Your task to perform on an android device: Go to wifi settings Image 0: 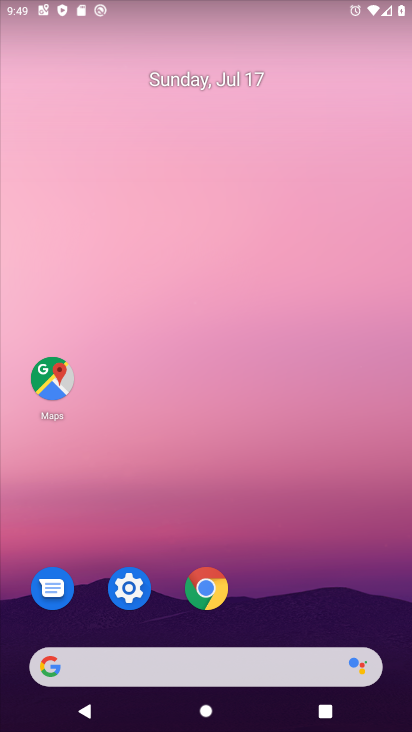
Step 0: drag from (291, 661) to (210, 12)
Your task to perform on an android device: Go to wifi settings Image 1: 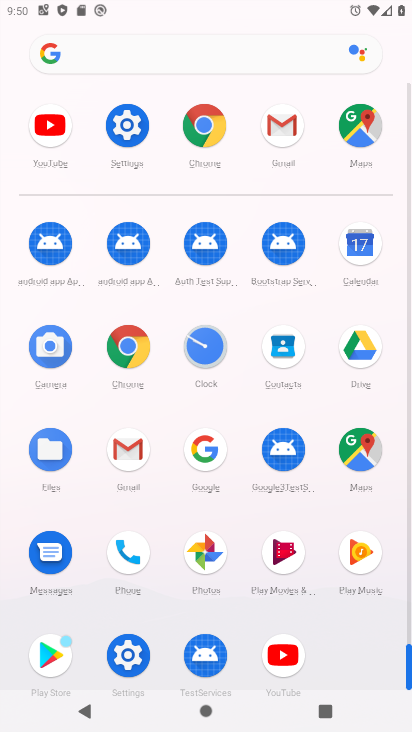
Step 1: click (134, 650)
Your task to perform on an android device: Go to wifi settings Image 2: 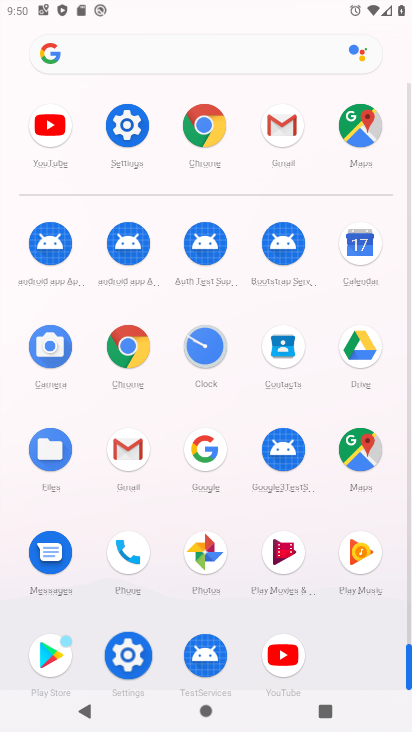
Step 2: click (133, 649)
Your task to perform on an android device: Go to wifi settings Image 3: 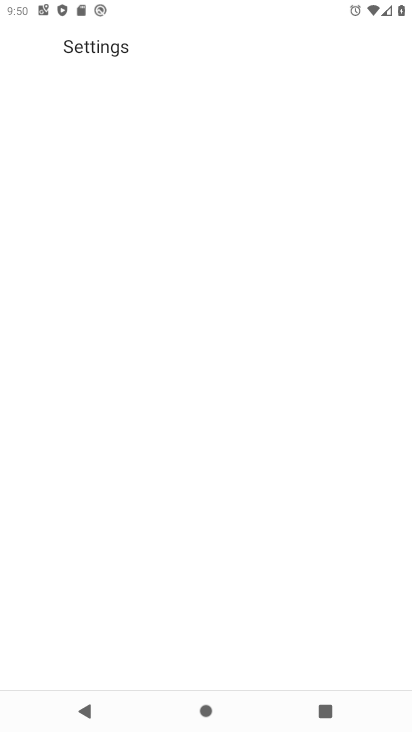
Step 3: click (133, 649)
Your task to perform on an android device: Go to wifi settings Image 4: 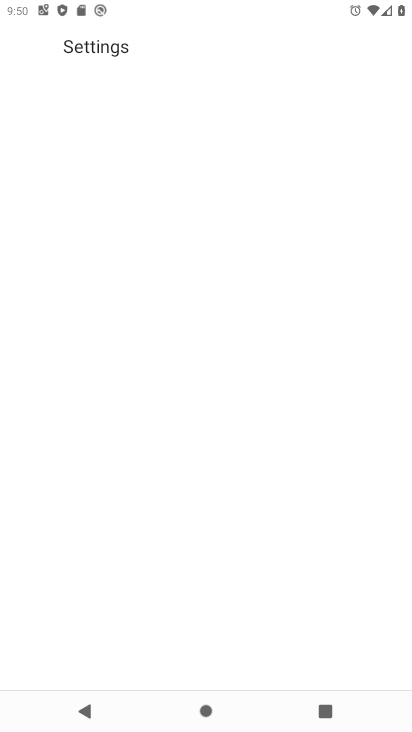
Step 4: click (131, 648)
Your task to perform on an android device: Go to wifi settings Image 5: 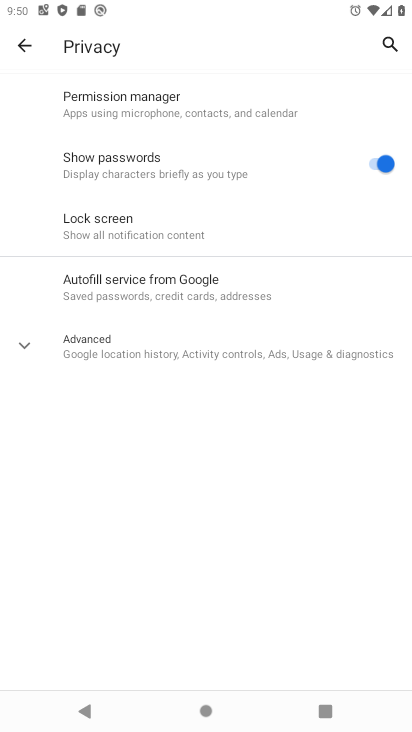
Step 5: click (21, 38)
Your task to perform on an android device: Go to wifi settings Image 6: 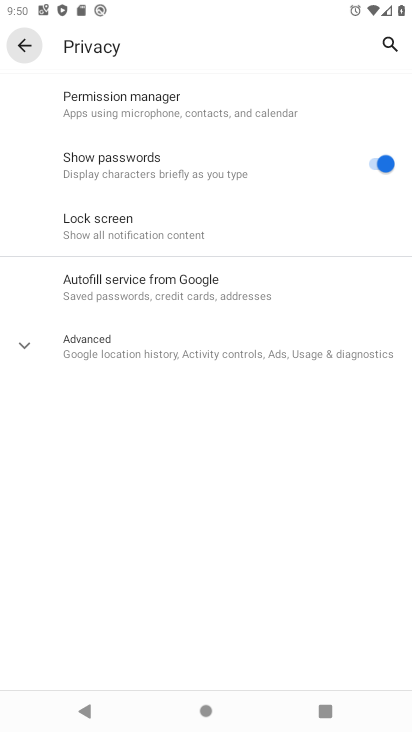
Step 6: click (24, 37)
Your task to perform on an android device: Go to wifi settings Image 7: 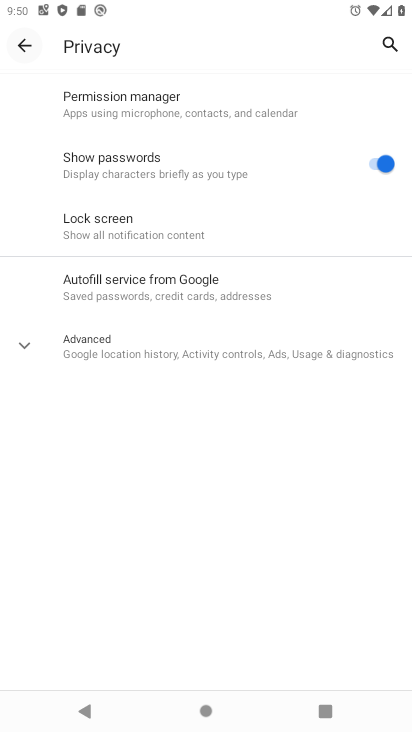
Step 7: click (24, 37)
Your task to perform on an android device: Go to wifi settings Image 8: 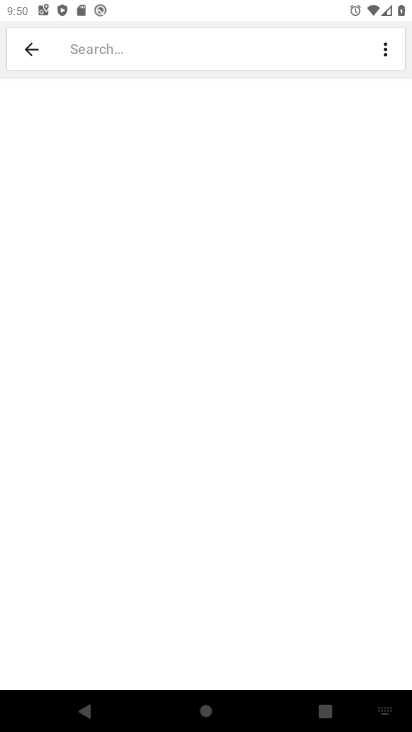
Step 8: drag from (125, 474) to (114, 354)
Your task to perform on an android device: Go to wifi settings Image 9: 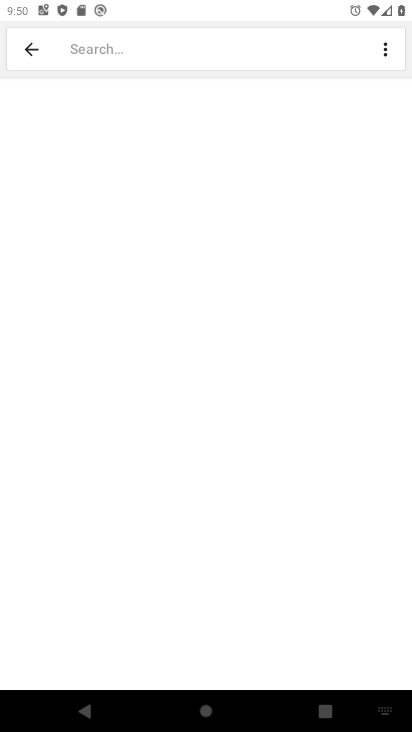
Step 9: click (36, 49)
Your task to perform on an android device: Go to wifi settings Image 10: 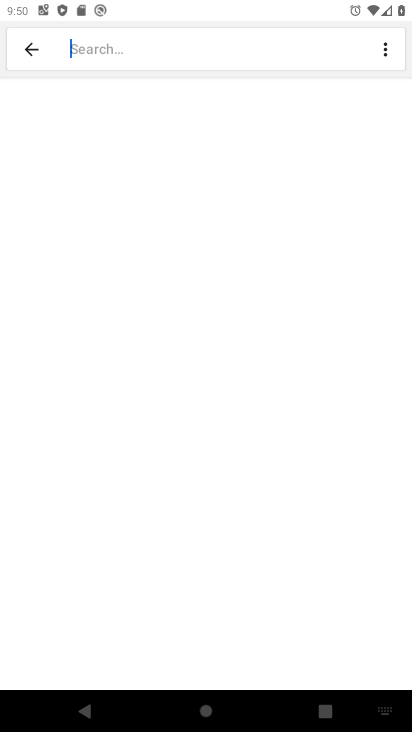
Step 10: click (34, 50)
Your task to perform on an android device: Go to wifi settings Image 11: 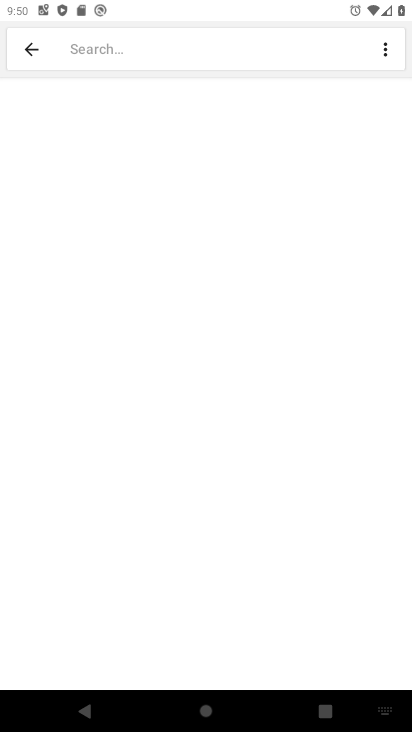
Step 11: drag from (155, 539) to (120, 313)
Your task to perform on an android device: Go to wifi settings Image 12: 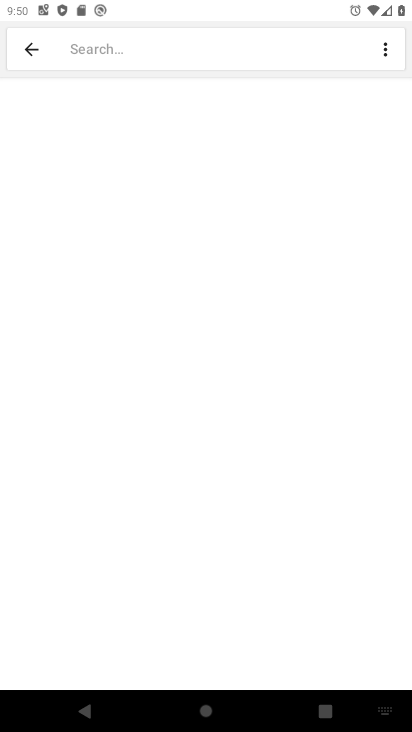
Step 12: click (32, 46)
Your task to perform on an android device: Go to wifi settings Image 13: 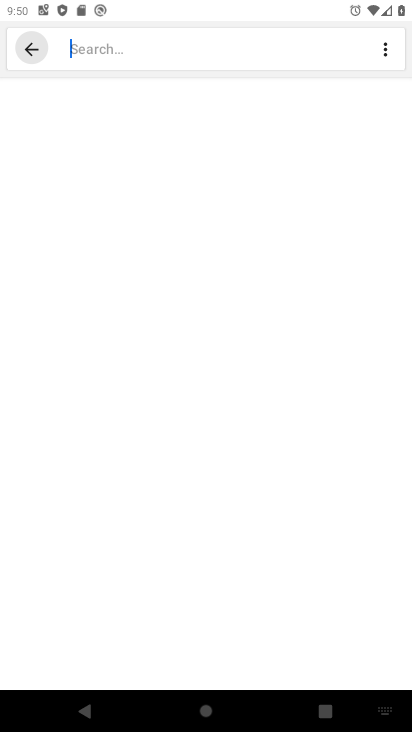
Step 13: click (34, 59)
Your task to perform on an android device: Go to wifi settings Image 14: 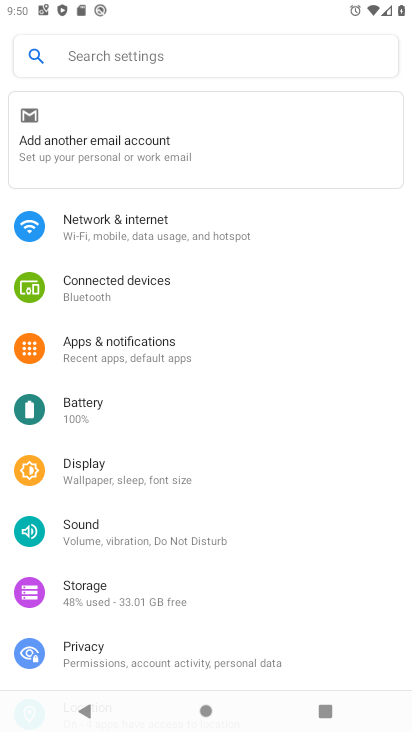
Step 14: drag from (148, 600) to (140, 184)
Your task to perform on an android device: Go to wifi settings Image 15: 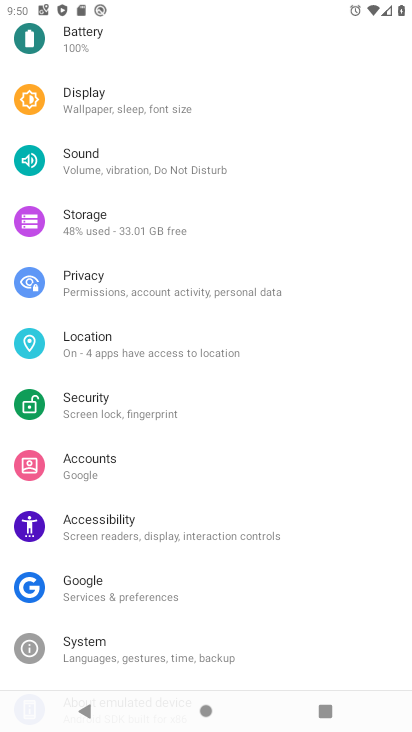
Step 15: drag from (168, 529) to (141, 216)
Your task to perform on an android device: Go to wifi settings Image 16: 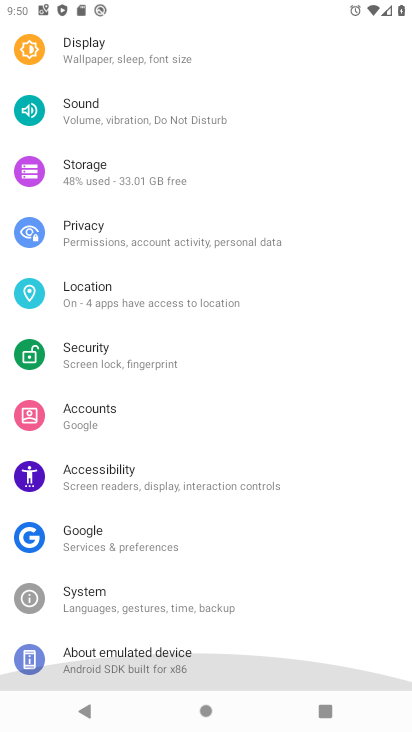
Step 16: drag from (121, 528) to (97, 211)
Your task to perform on an android device: Go to wifi settings Image 17: 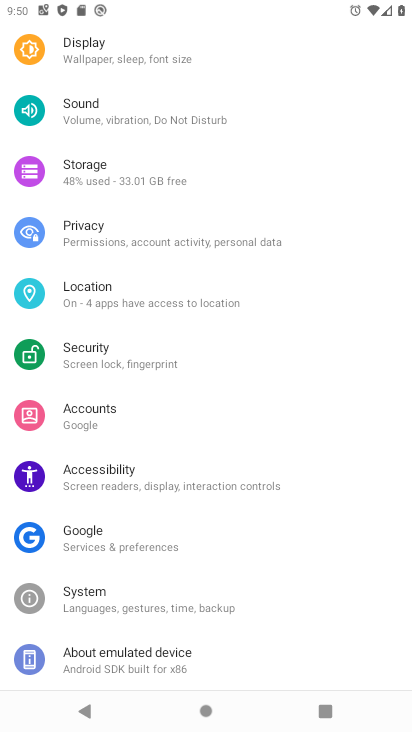
Step 17: drag from (67, 200) to (71, 514)
Your task to perform on an android device: Go to wifi settings Image 18: 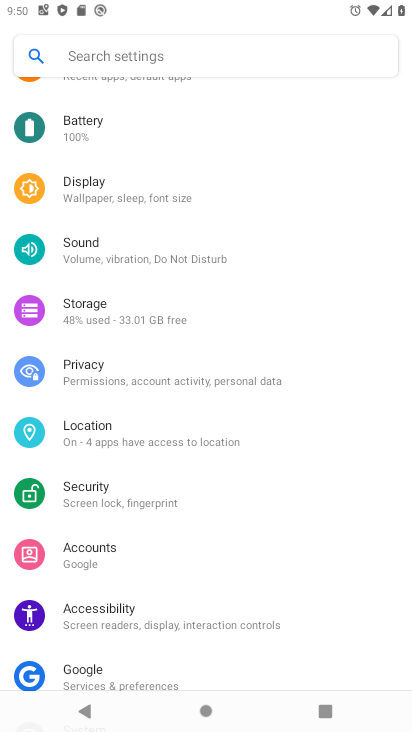
Step 18: drag from (133, 180) to (152, 522)
Your task to perform on an android device: Go to wifi settings Image 19: 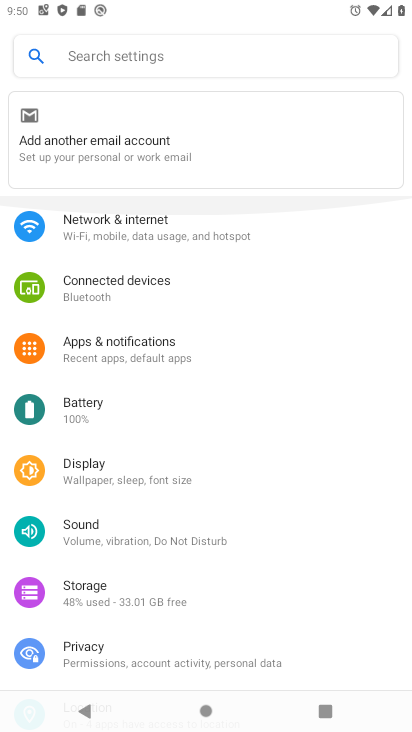
Step 19: drag from (148, 273) to (142, 600)
Your task to perform on an android device: Go to wifi settings Image 20: 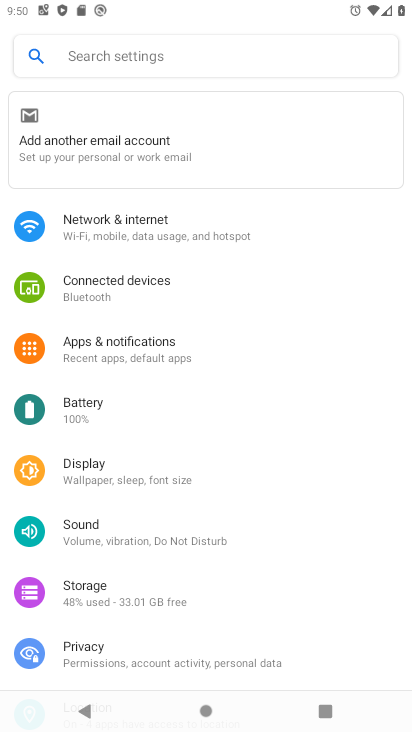
Step 20: click (137, 215)
Your task to perform on an android device: Go to wifi settings Image 21: 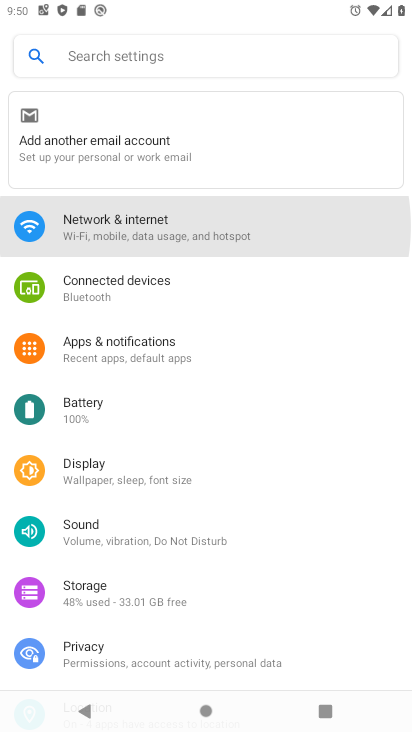
Step 21: click (133, 225)
Your task to perform on an android device: Go to wifi settings Image 22: 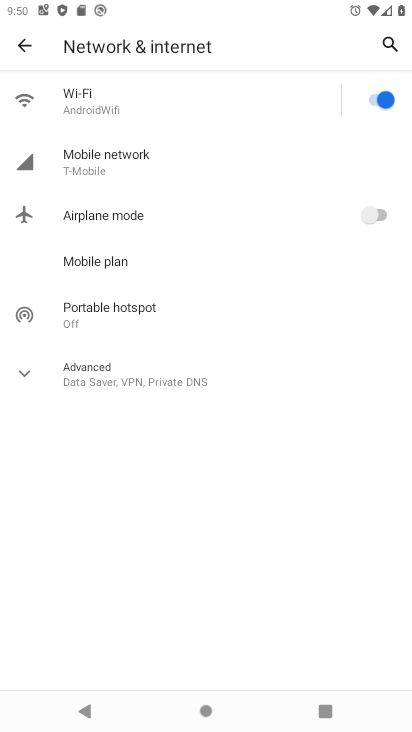
Step 22: task complete